Your task to perform on an android device: What's the weather today? Image 0: 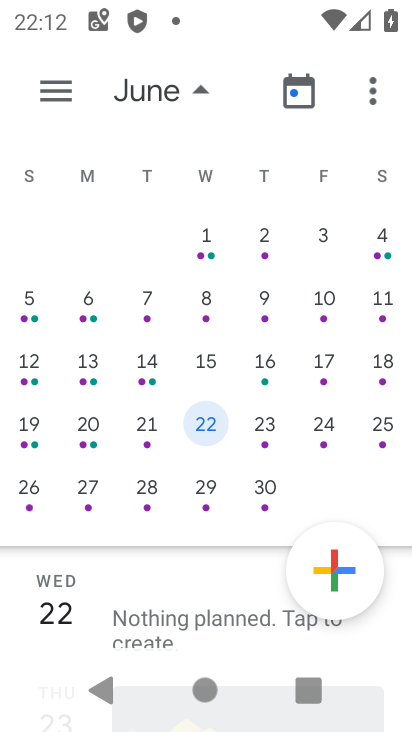
Step 0: press home button
Your task to perform on an android device: What's the weather today? Image 1: 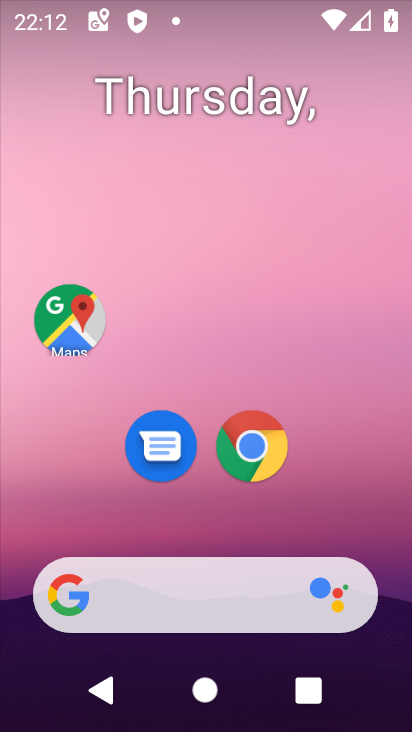
Step 1: click (264, 444)
Your task to perform on an android device: What's the weather today? Image 2: 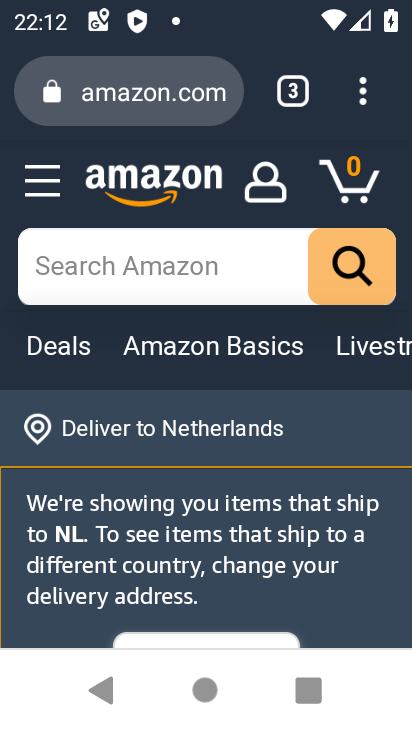
Step 2: click (140, 80)
Your task to perform on an android device: What's the weather today? Image 3: 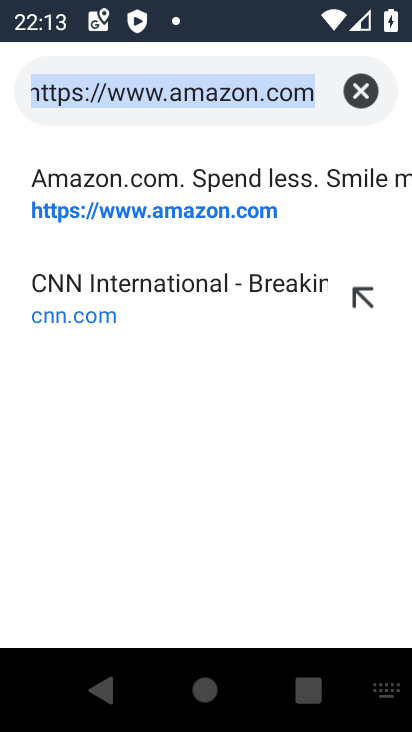
Step 3: click (370, 93)
Your task to perform on an android device: What's the weather today? Image 4: 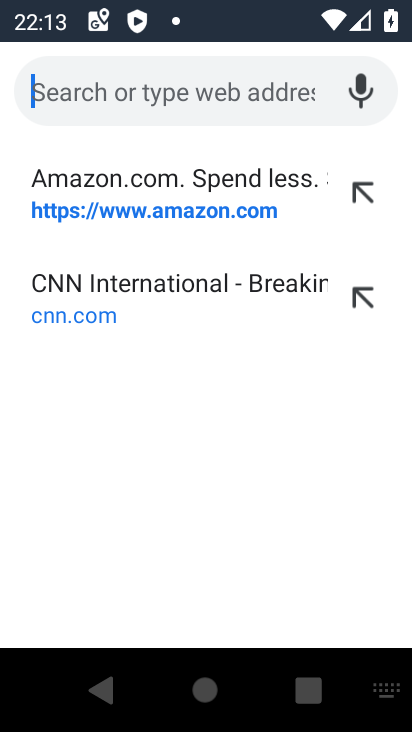
Step 4: type "What's the weather today?"
Your task to perform on an android device: What's the weather today? Image 5: 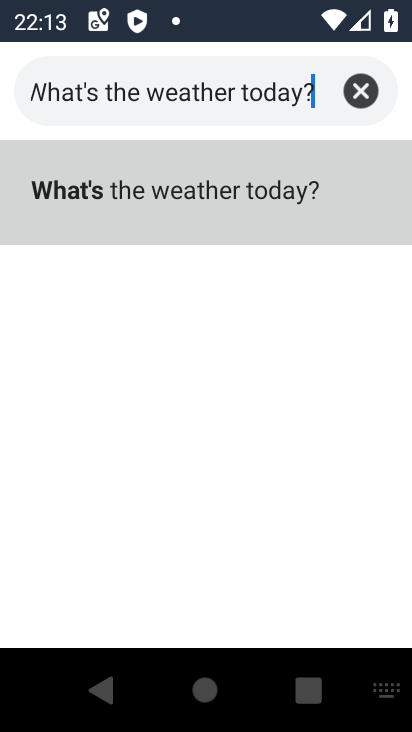
Step 5: type ""
Your task to perform on an android device: What's the weather today? Image 6: 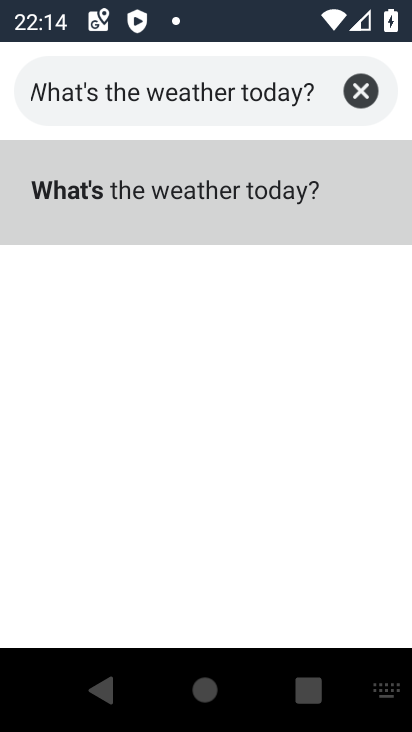
Step 6: click (183, 206)
Your task to perform on an android device: What's the weather today? Image 7: 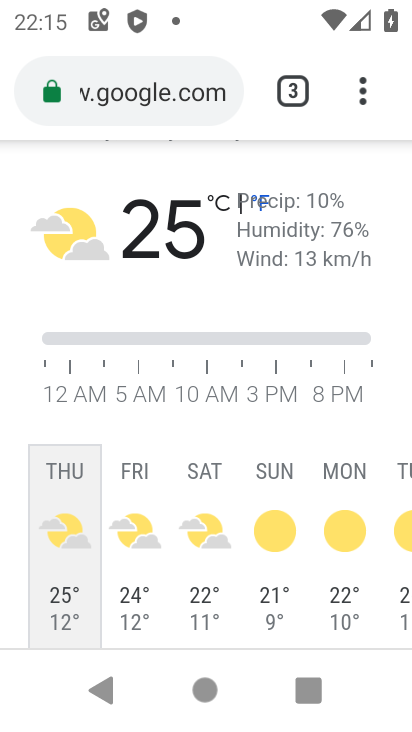
Step 7: task complete